Your task to perform on an android device: open wifi settings Image 0: 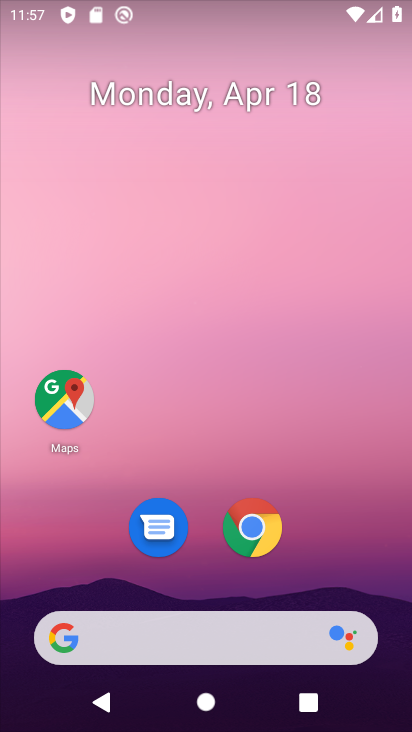
Step 0: drag from (333, 542) to (407, 61)
Your task to perform on an android device: open wifi settings Image 1: 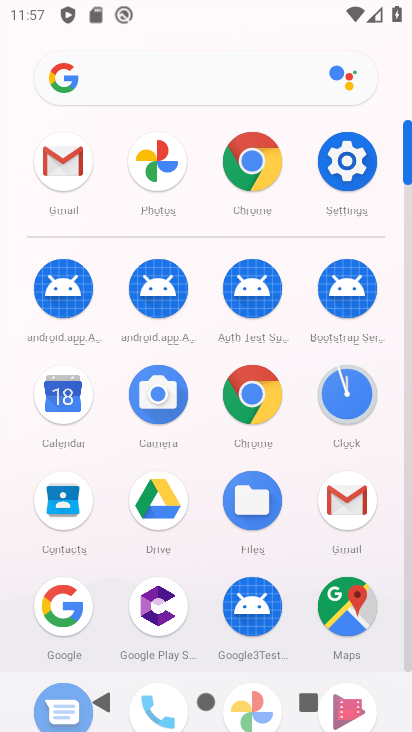
Step 1: click (343, 163)
Your task to perform on an android device: open wifi settings Image 2: 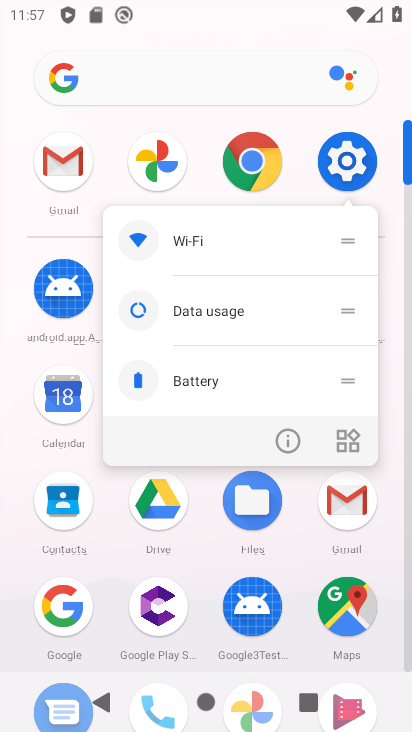
Step 2: click (344, 162)
Your task to perform on an android device: open wifi settings Image 3: 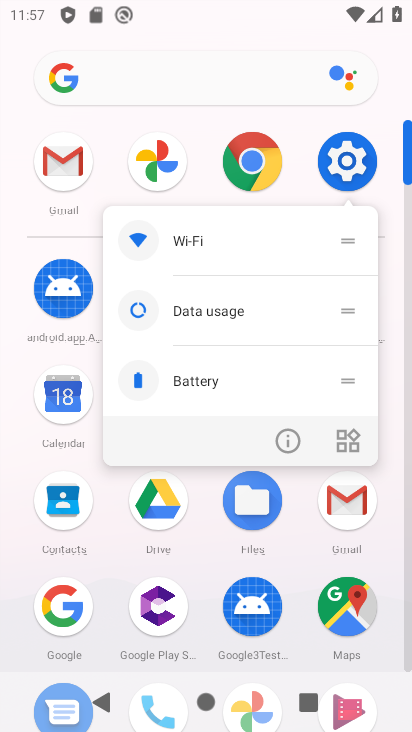
Step 3: click (344, 162)
Your task to perform on an android device: open wifi settings Image 4: 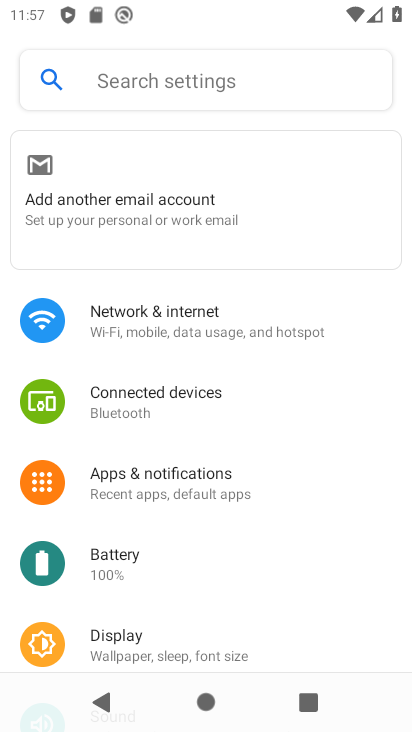
Step 4: click (225, 329)
Your task to perform on an android device: open wifi settings Image 5: 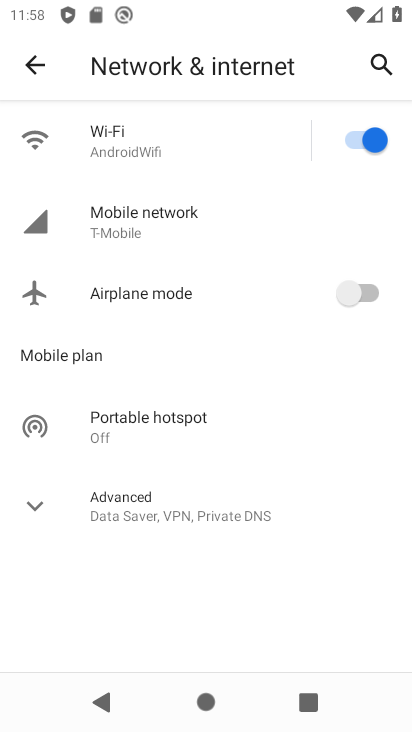
Step 5: click (139, 149)
Your task to perform on an android device: open wifi settings Image 6: 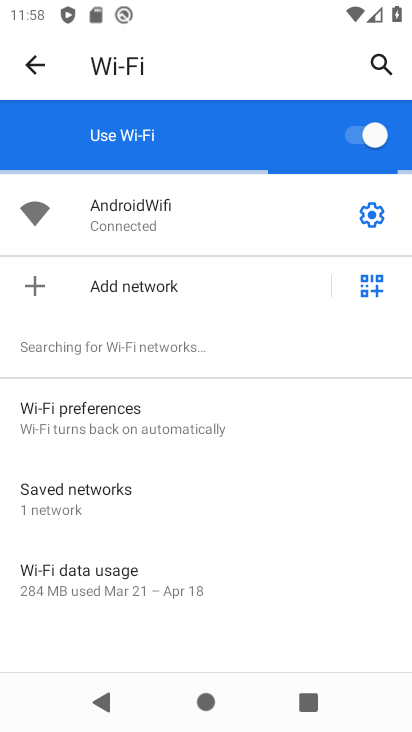
Step 6: task complete